Your task to perform on an android device: change the upload size in google photos Image 0: 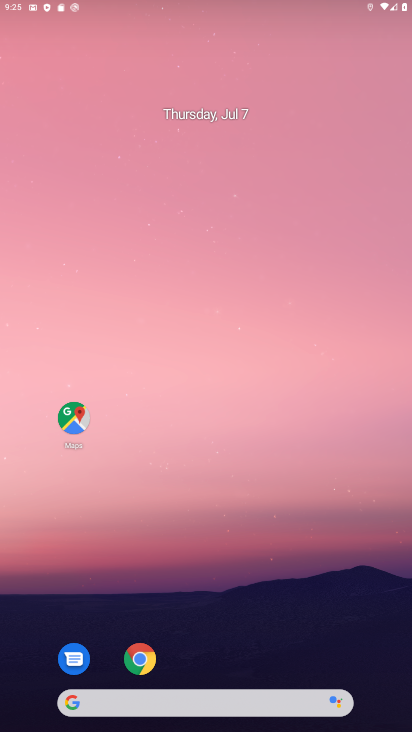
Step 0: drag from (223, 641) to (305, 132)
Your task to perform on an android device: change the upload size in google photos Image 1: 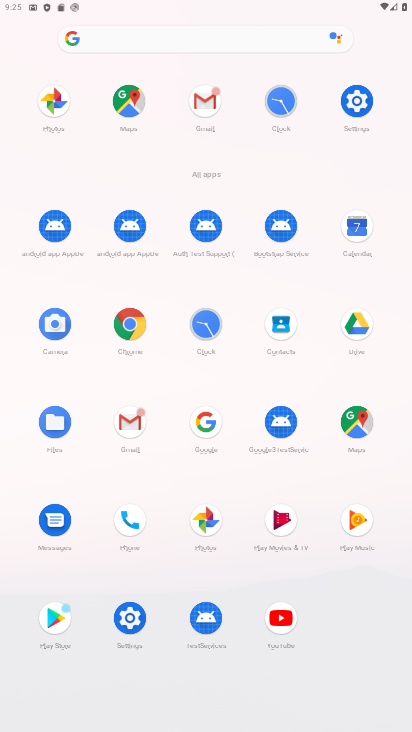
Step 1: click (209, 527)
Your task to perform on an android device: change the upload size in google photos Image 2: 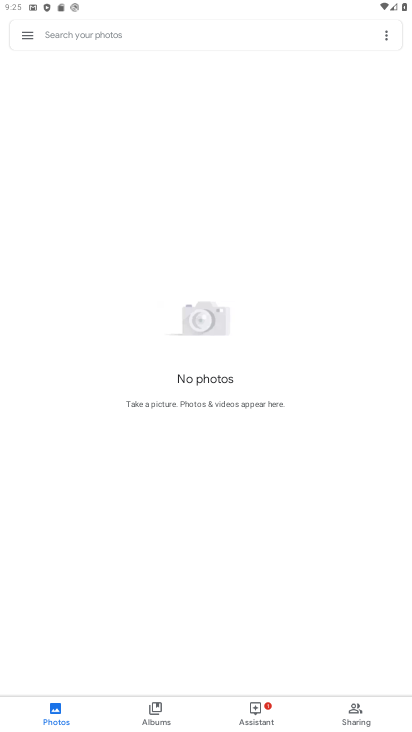
Step 2: click (28, 28)
Your task to perform on an android device: change the upload size in google photos Image 3: 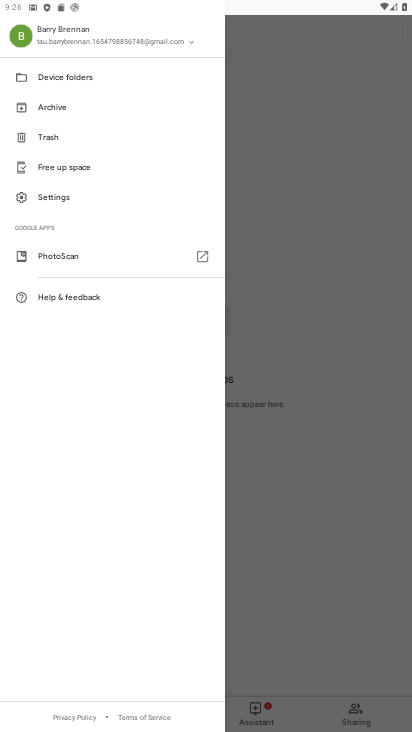
Step 3: click (109, 201)
Your task to perform on an android device: change the upload size in google photos Image 4: 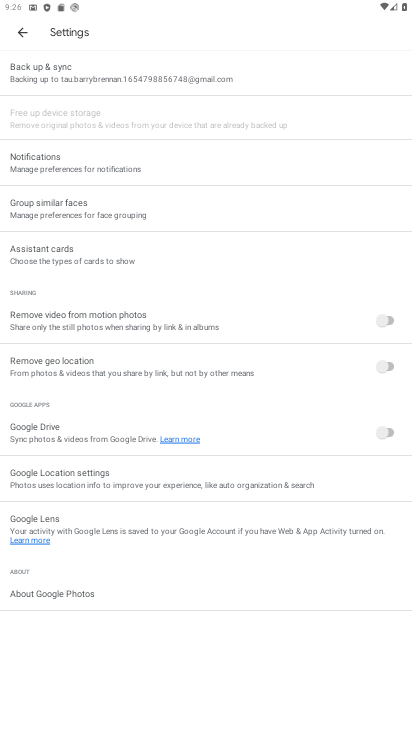
Step 4: click (141, 84)
Your task to perform on an android device: change the upload size in google photos Image 5: 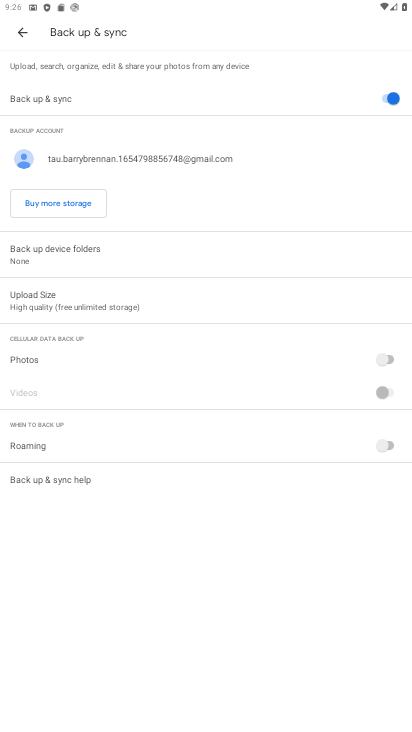
Step 5: click (146, 304)
Your task to perform on an android device: change the upload size in google photos Image 6: 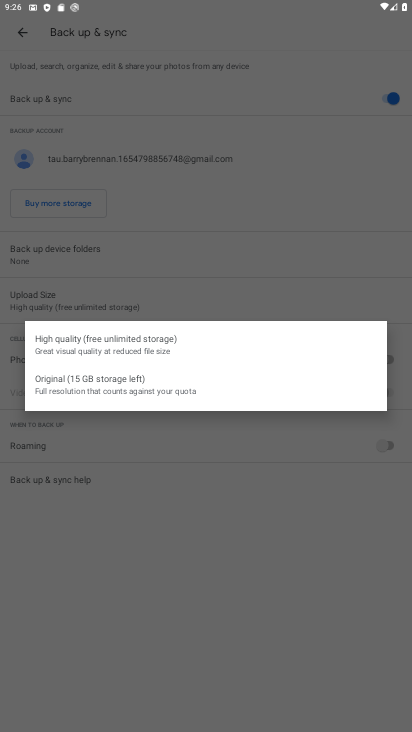
Step 6: click (120, 376)
Your task to perform on an android device: change the upload size in google photos Image 7: 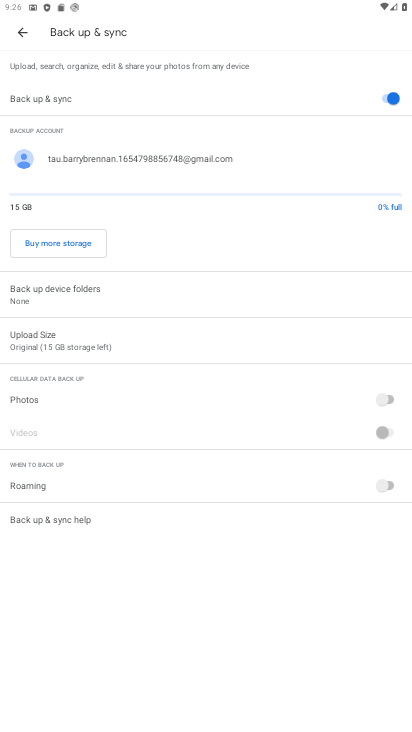
Step 7: task complete